Your task to perform on an android device: Open wifi settings Image 0: 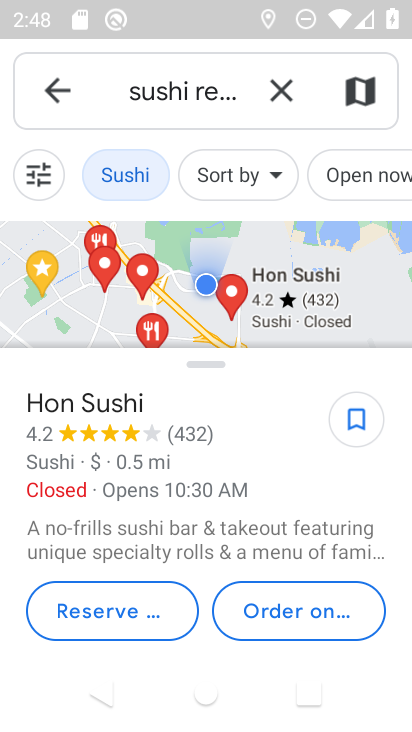
Step 0: press home button
Your task to perform on an android device: Open wifi settings Image 1: 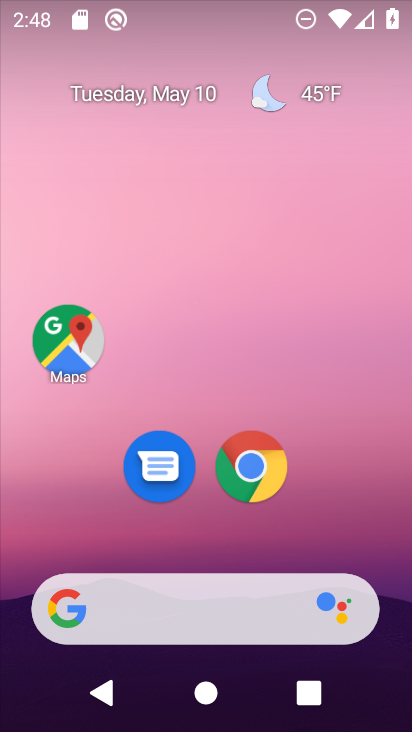
Step 1: drag from (314, 543) to (313, 9)
Your task to perform on an android device: Open wifi settings Image 2: 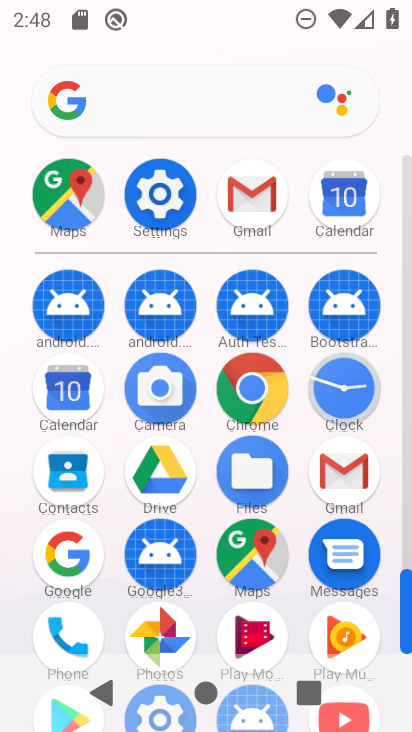
Step 2: click (166, 197)
Your task to perform on an android device: Open wifi settings Image 3: 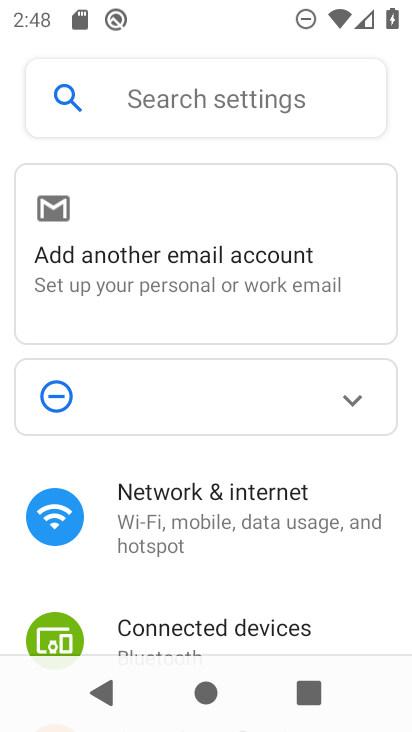
Step 3: click (164, 490)
Your task to perform on an android device: Open wifi settings Image 4: 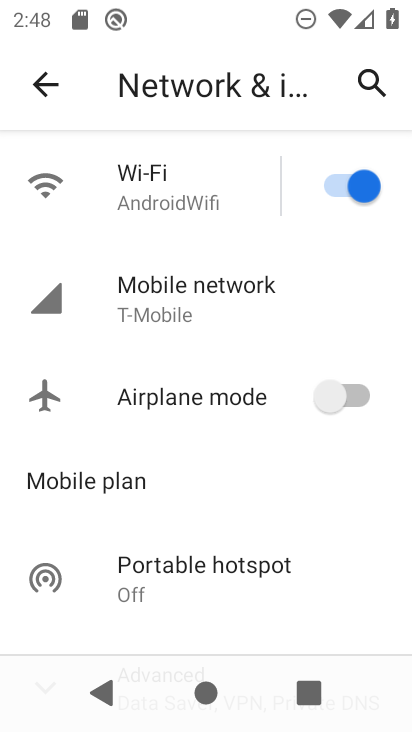
Step 4: click (146, 193)
Your task to perform on an android device: Open wifi settings Image 5: 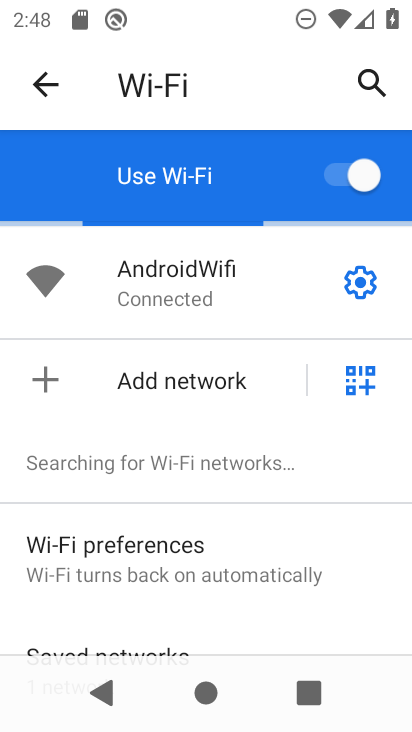
Step 5: task complete